Your task to perform on an android device: toggle show notifications on the lock screen Image 0: 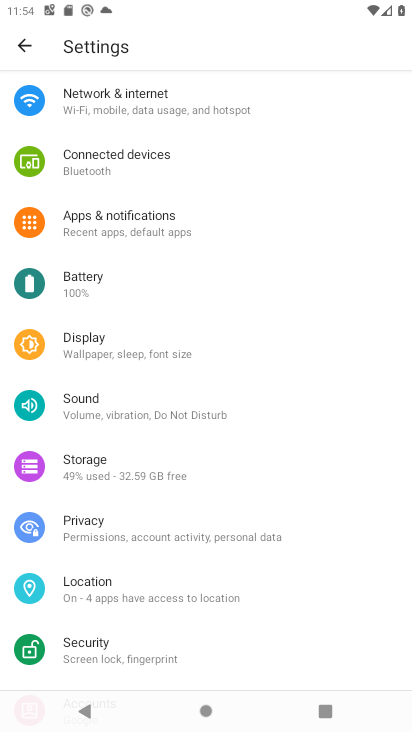
Step 0: press home button
Your task to perform on an android device: toggle show notifications on the lock screen Image 1: 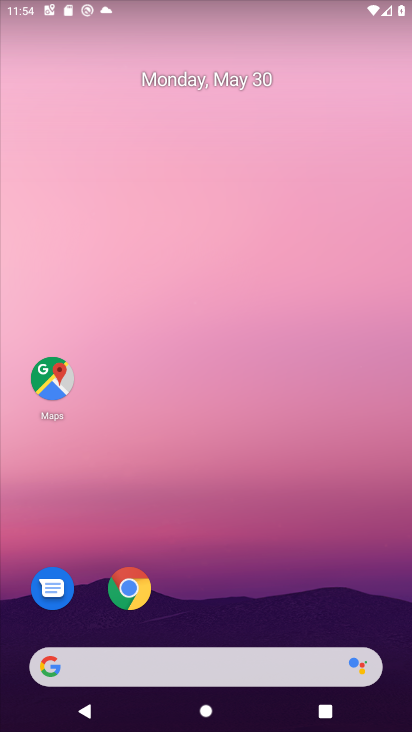
Step 1: drag from (347, 604) to (407, 281)
Your task to perform on an android device: toggle show notifications on the lock screen Image 2: 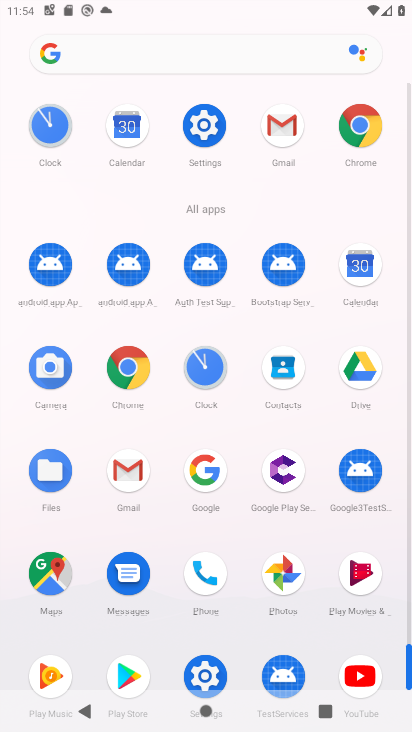
Step 2: click (208, 118)
Your task to perform on an android device: toggle show notifications on the lock screen Image 3: 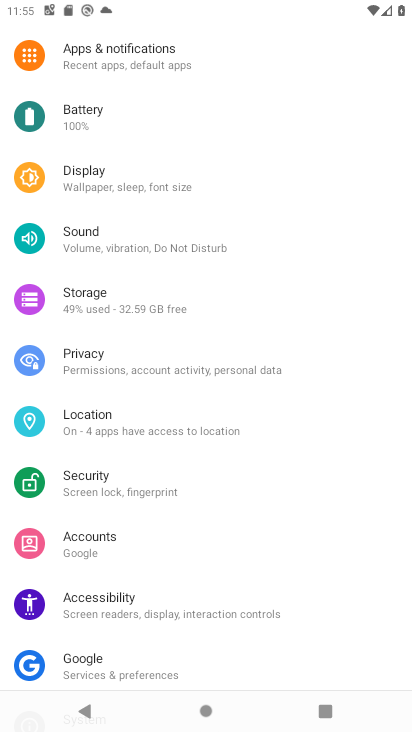
Step 3: click (136, 53)
Your task to perform on an android device: toggle show notifications on the lock screen Image 4: 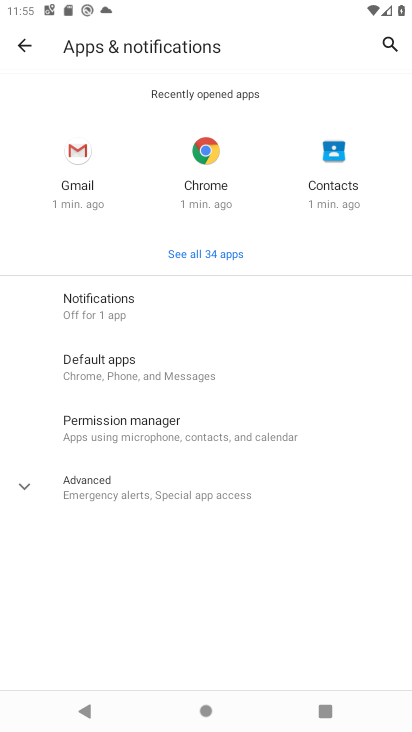
Step 4: click (120, 289)
Your task to perform on an android device: toggle show notifications on the lock screen Image 5: 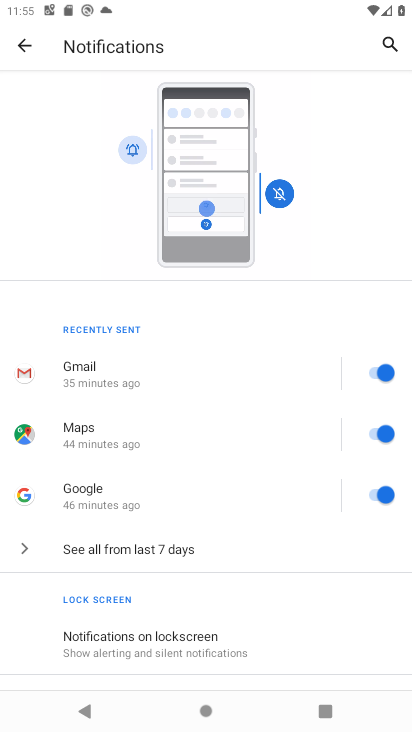
Step 5: click (255, 655)
Your task to perform on an android device: toggle show notifications on the lock screen Image 6: 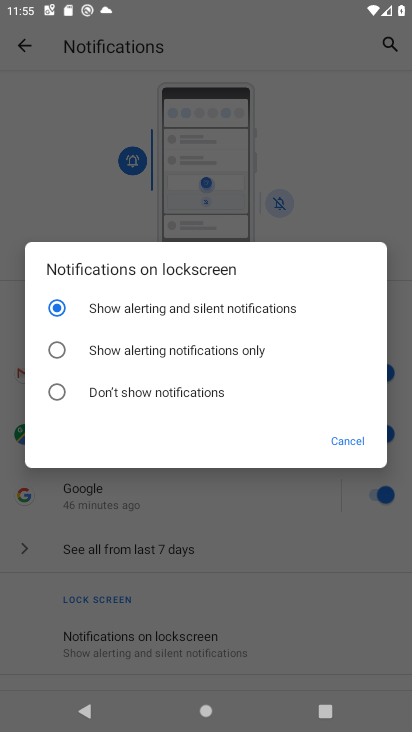
Step 6: click (147, 354)
Your task to perform on an android device: toggle show notifications on the lock screen Image 7: 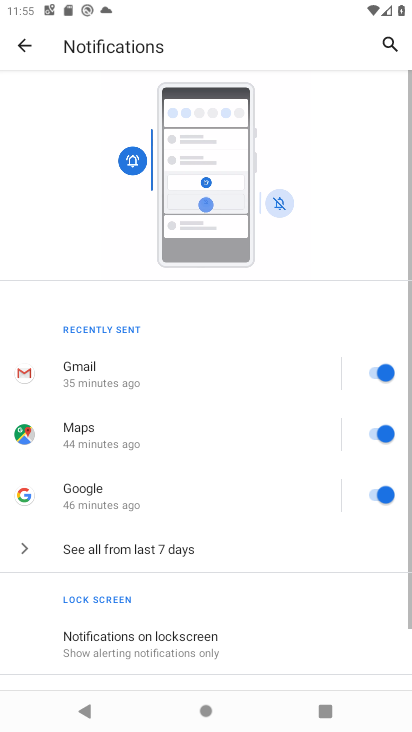
Step 7: task complete